Your task to perform on an android device: change the clock style Image 0: 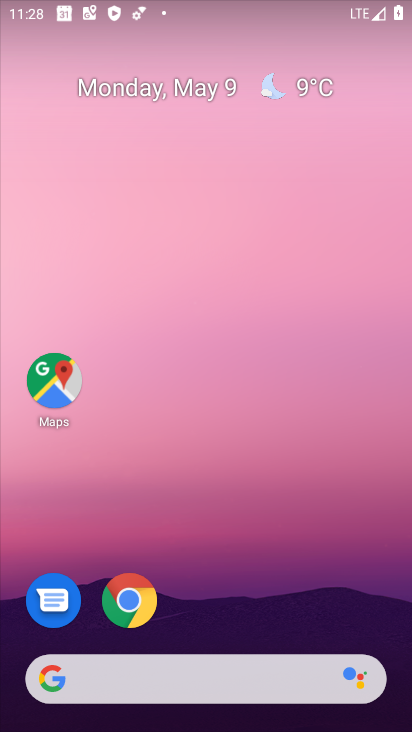
Step 0: press home button
Your task to perform on an android device: change the clock style Image 1: 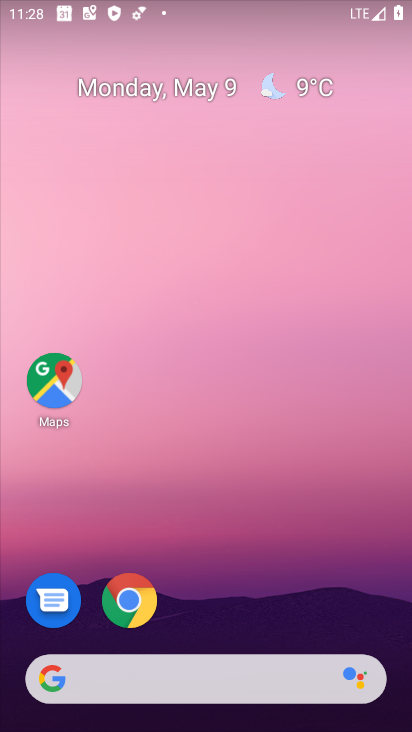
Step 1: drag from (333, 619) to (309, 150)
Your task to perform on an android device: change the clock style Image 2: 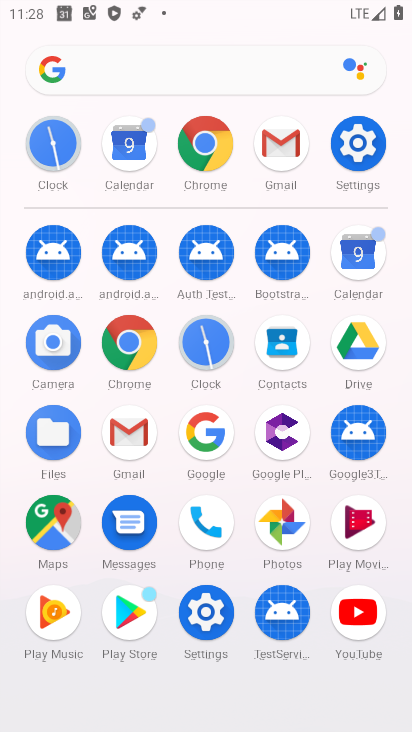
Step 2: click (219, 352)
Your task to perform on an android device: change the clock style Image 3: 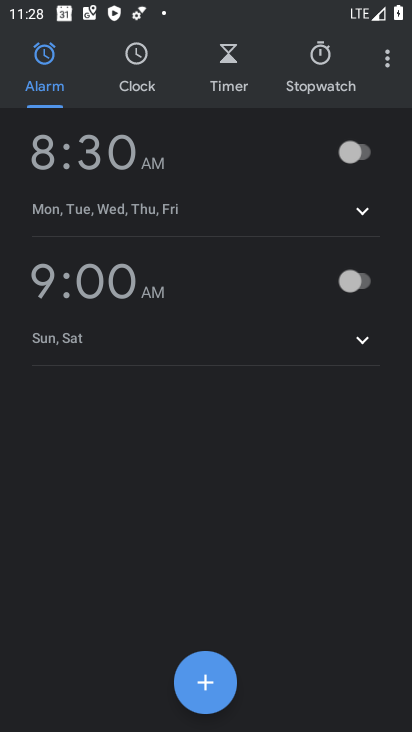
Step 3: click (398, 79)
Your task to perform on an android device: change the clock style Image 4: 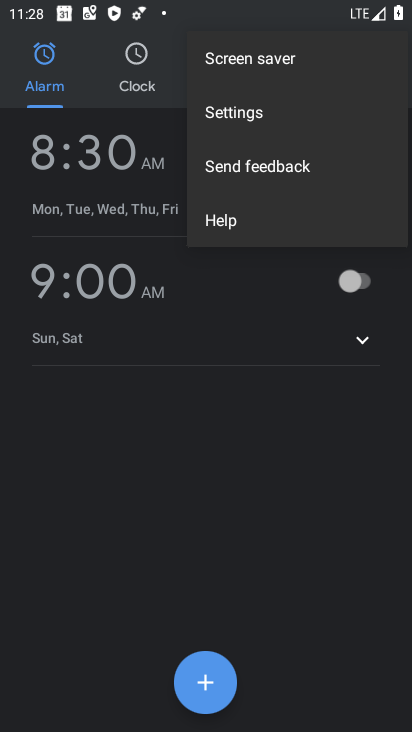
Step 4: click (246, 136)
Your task to perform on an android device: change the clock style Image 5: 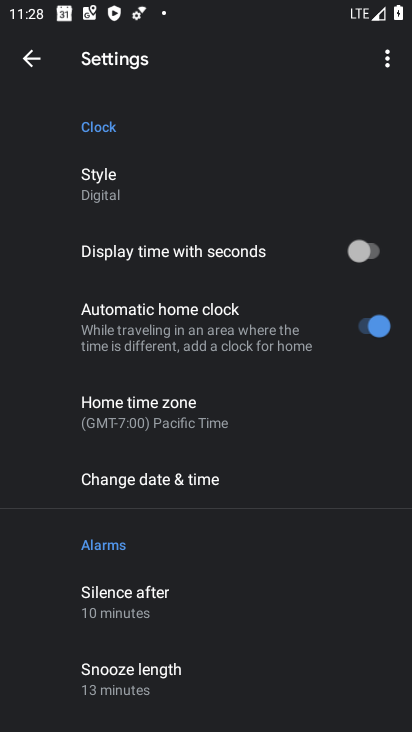
Step 5: click (149, 181)
Your task to perform on an android device: change the clock style Image 6: 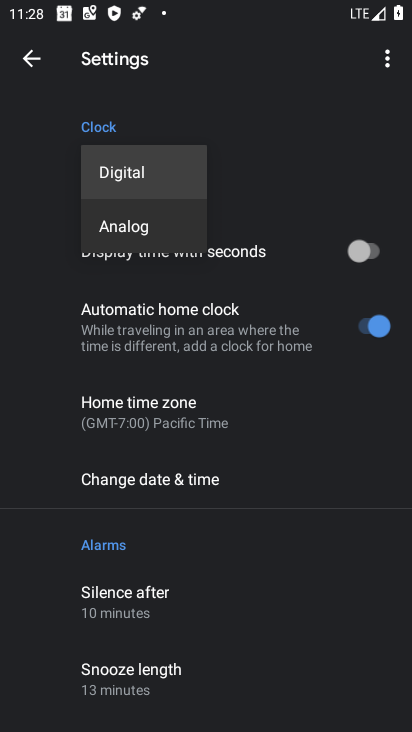
Step 6: click (174, 228)
Your task to perform on an android device: change the clock style Image 7: 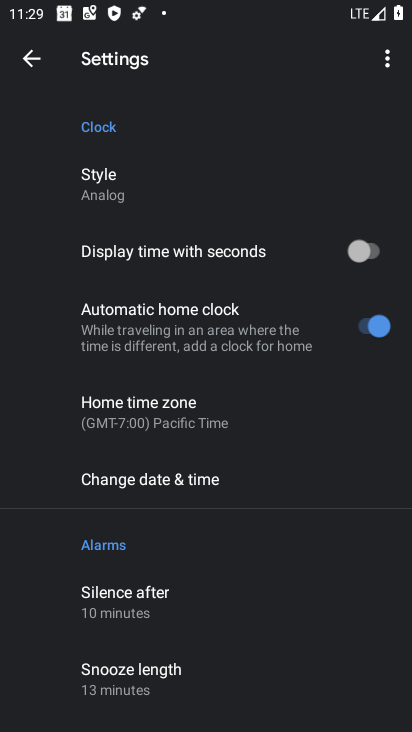
Step 7: task complete